Your task to perform on an android device: Open Chrome and go to settings Image 0: 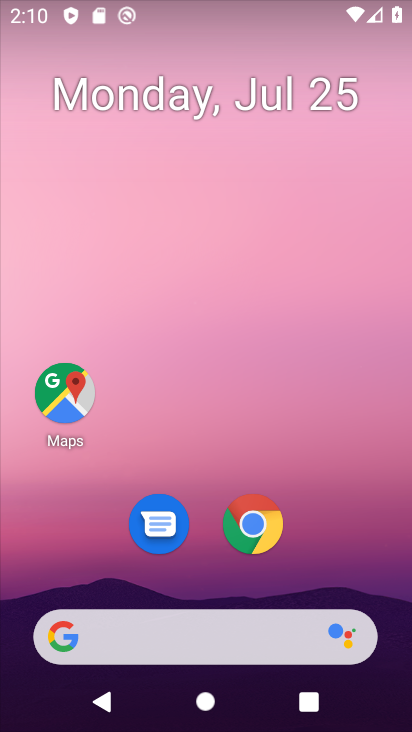
Step 0: click (261, 536)
Your task to perform on an android device: Open Chrome and go to settings Image 1: 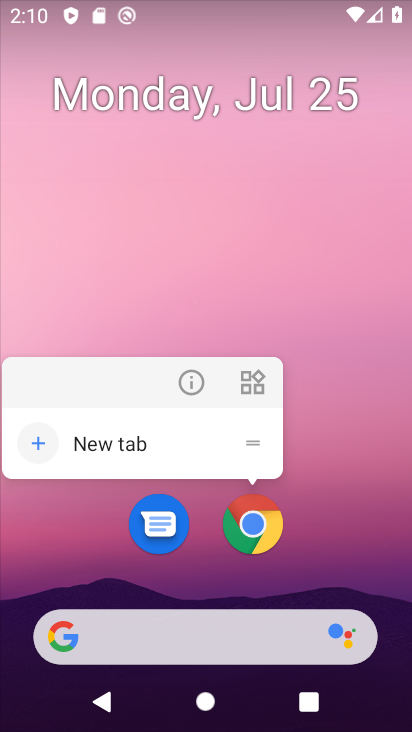
Step 1: click (248, 522)
Your task to perform on an android device: Open Chrome and go to settings Image 2: 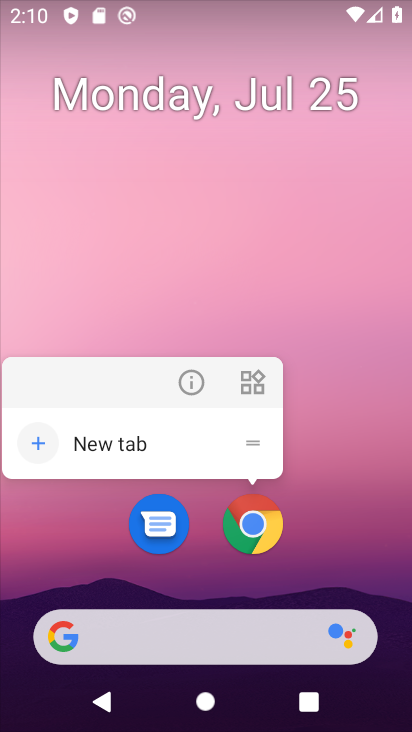
Step 2: click (248, 522)
Your task to perform on an android device: Open Chrome and go to settings Image 3: 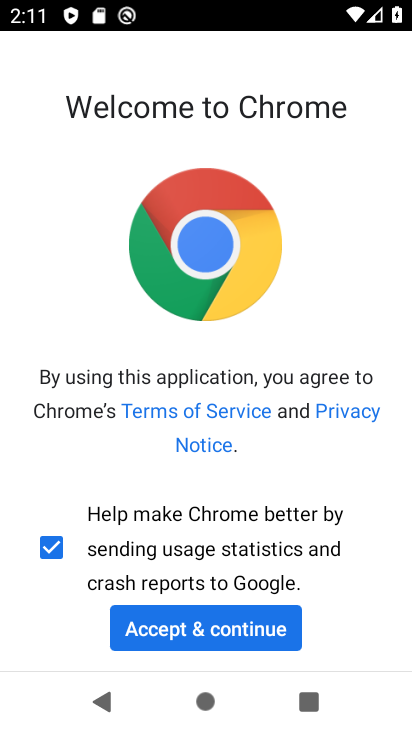
Step 3: click (229, 627)
Your task to perform on an android device: Open Chrome and go to settings Image 4: 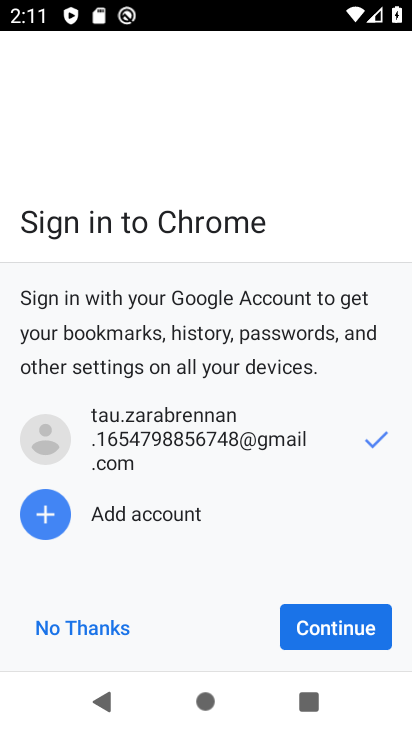
Step 4: click (342, 632)
Your task to perform on an android device: Open Chrome and go to settings Image 5: 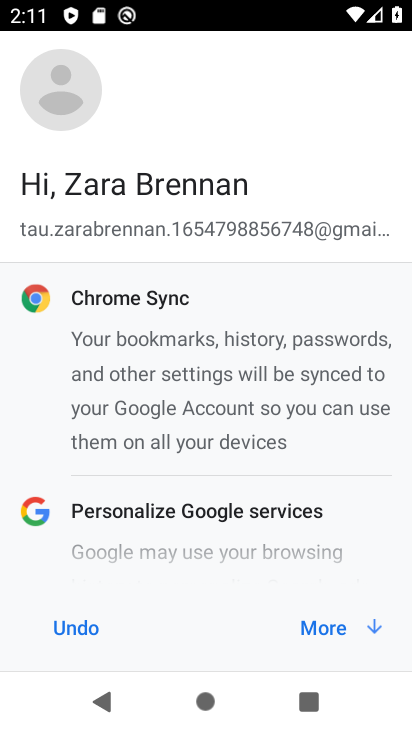
Step 5: click (342, 630)
Your task to perform on an android device: Open Chrome and go to settings Image 6: 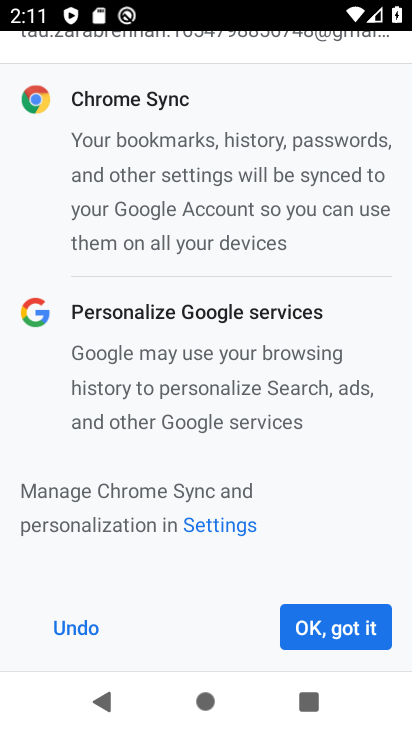
Step 6: click (342, 630)
Your task to perform on an android device: Open Chrome and go to settings Image 7: 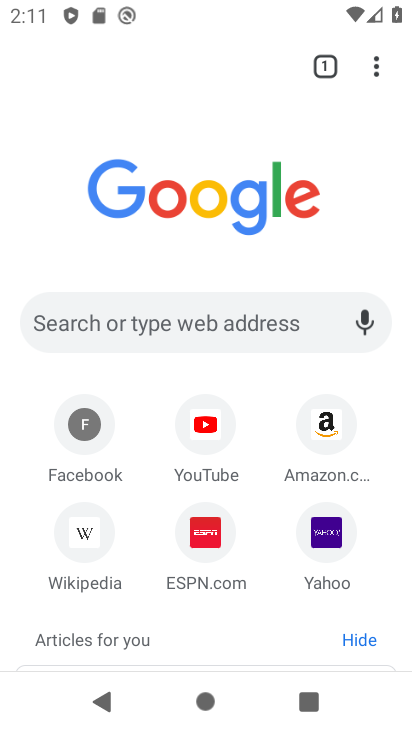
Step 7: task complete